Your task to perform on an android device: turn on location history Image 0: 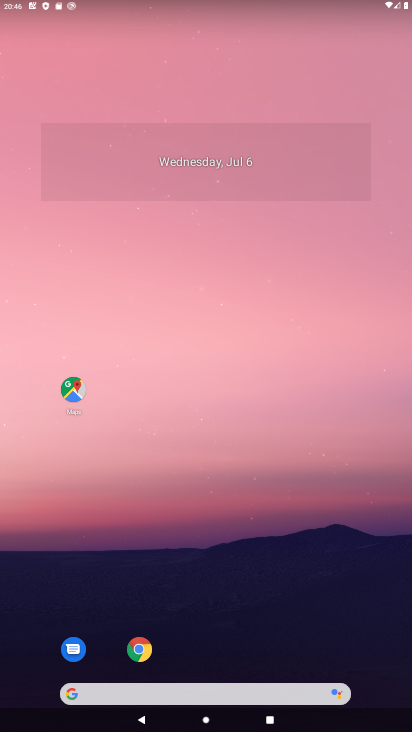
Step 0: drag from (261, 654) to (278, 60)
Your task to perform on an android device: turn on location history Image 1: 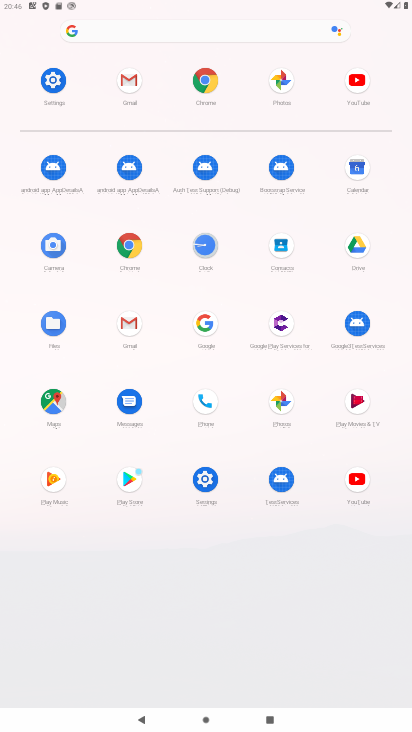
Step 1: click (204, 490)
Your task to perform on an android device: turn on location history Image 2: 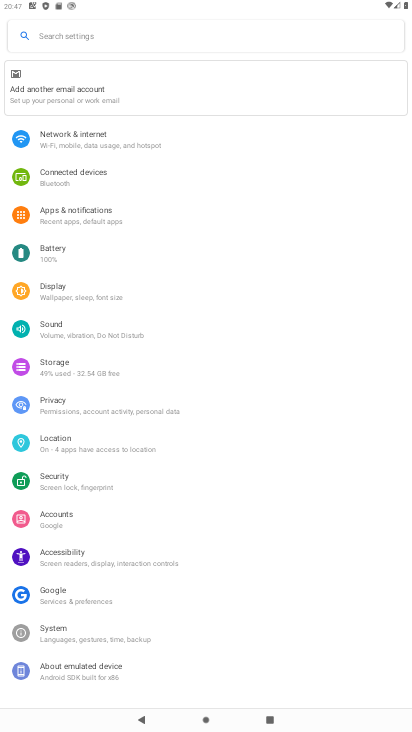
Step 2: click (95, 447)
Your task to perform on an android device: turn on location history Image 3: 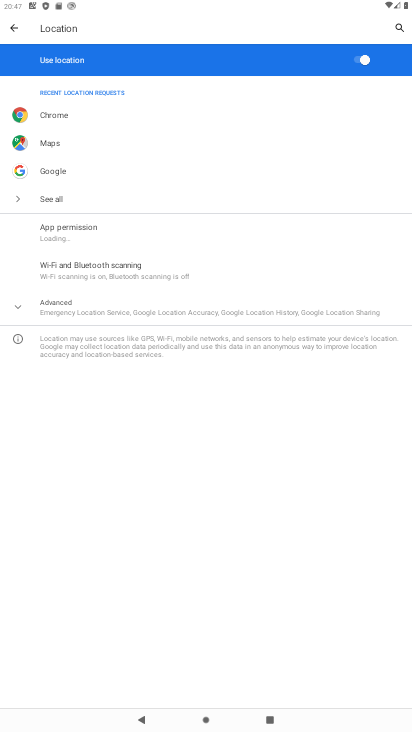
Step 3: click (70, 312)
Your task to perform on an android device: turn on location history Image 4: 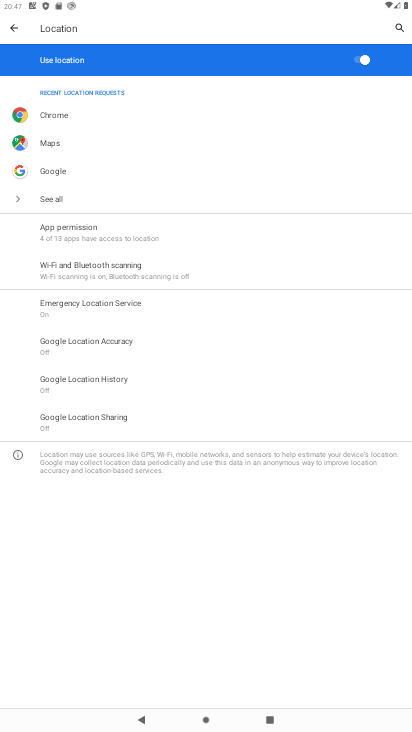
Step 4: click (114, 383)
Your task to perform on an android device: turn on location history Image 5: 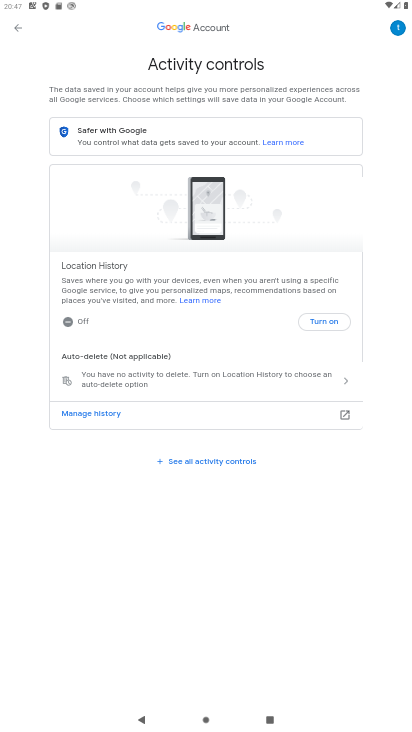
Step 5: click (344, 321)
Your task to perform on an android device: turn on location history Image 6: 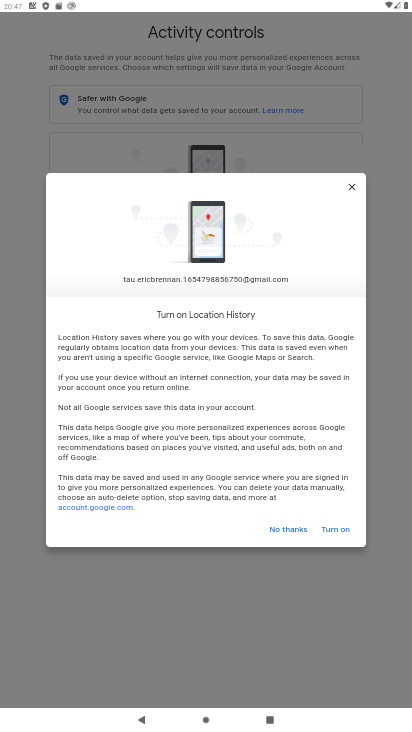
Step 6: click (348, 530)
Your task to perform on an android device: turn on location history Image 7: 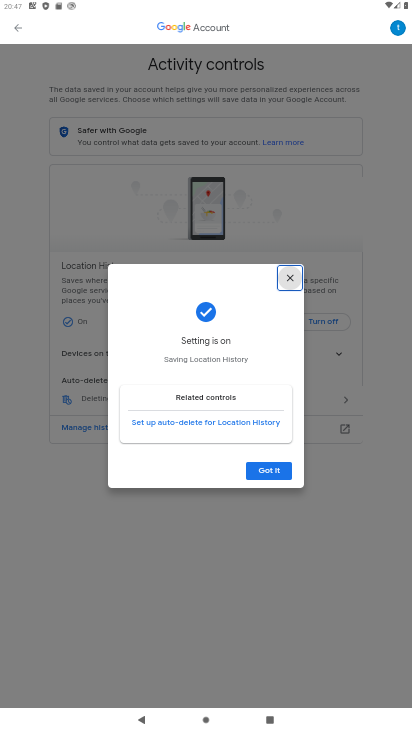
Step 7: click (270, 467)
Your task to perform on an android device: turn on location history Image 8: 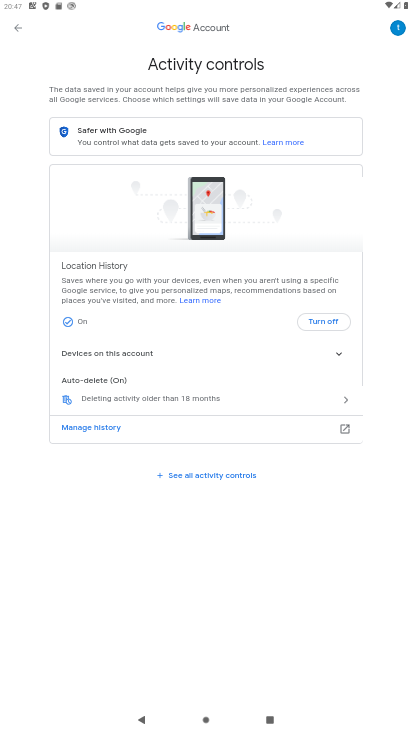
Step 8: task complete